Your task to perform on an android device: Open ESPN.com Image 0: 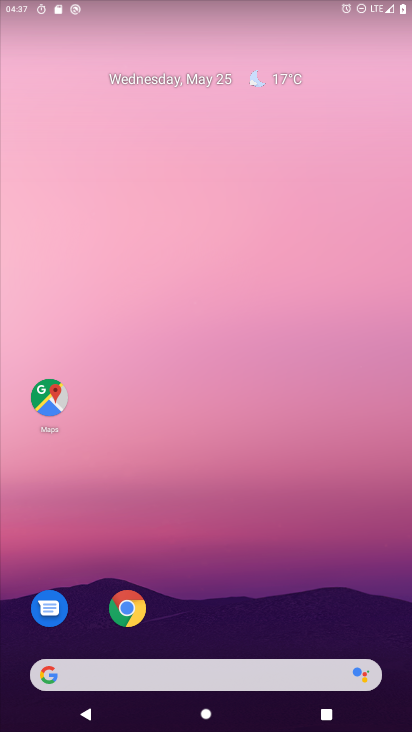
Step 0: click (133, 608)
Your task to perform on an android device: Open ESPN.com Image 1: 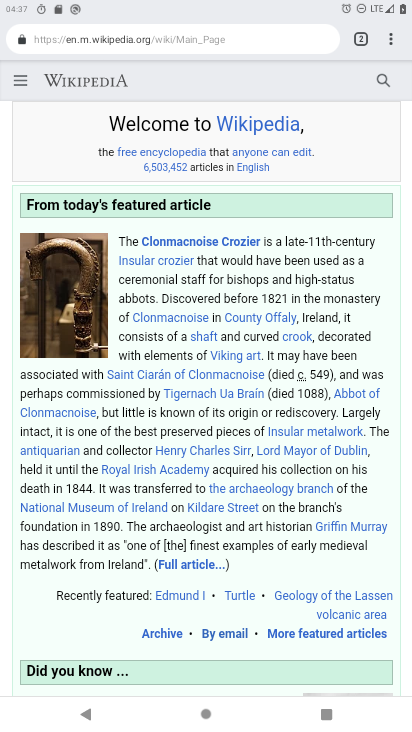
Step 1: click (212, 31)
Your task to perform on an android device: Open ESPN.com Image 2: 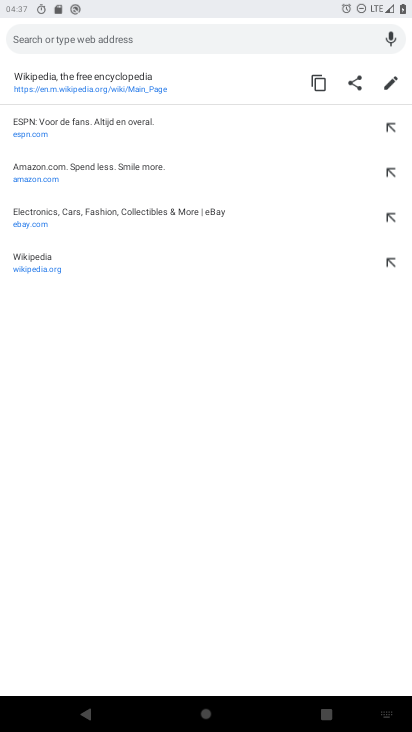
Step 2: click (20, 135)
Your task to perform on an android device: Open ESPN.com Image 3: 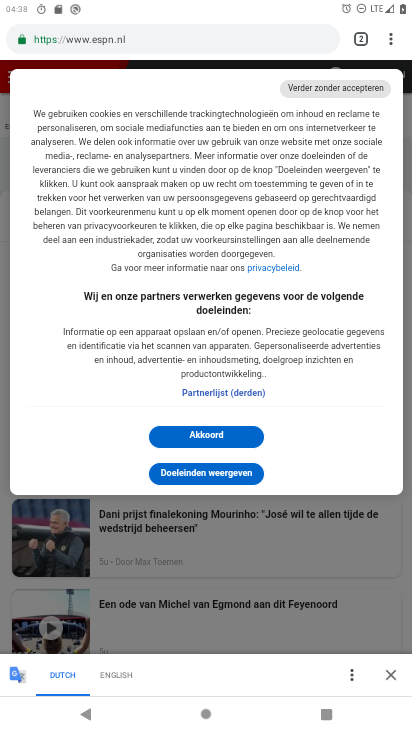
Step 3: task complete